Your task to perform on an android device: turn off sleep mode Image 0: 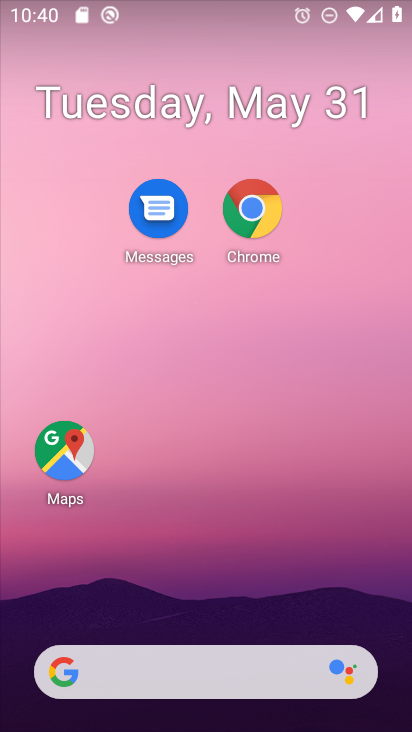
Step 0: drag from (213, 591) to (265, 0)
Your task to perform on an android device: turn off sleep mode Image 1: 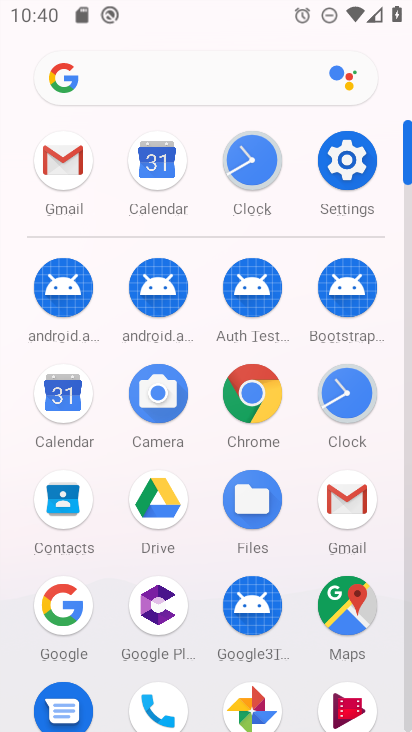
Step 1: click (351, 159)
Your task to perform on an android device: turn off sleep mode Image 2: 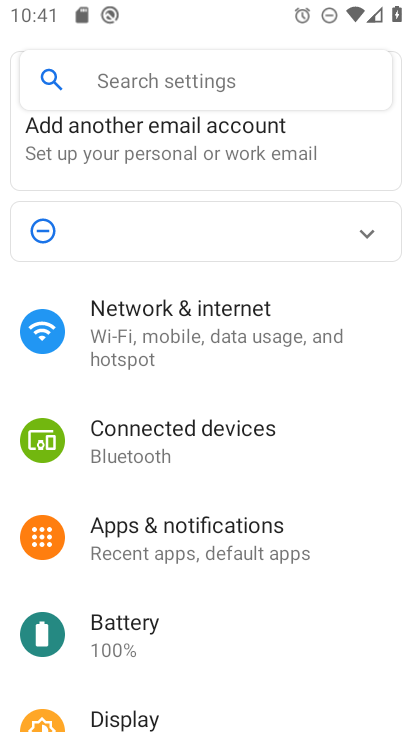
Step 2: click (177, 711)
Your task to perform on an android device: turn off sleep mode Image 3: 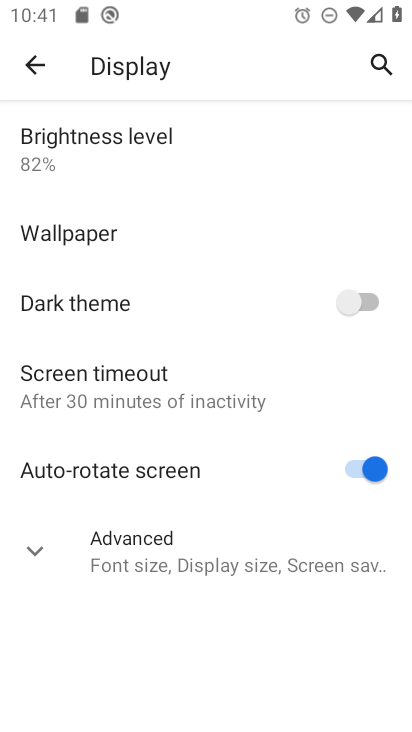
Step 3: click (21, 543)
Your task to perform on an android device: turn off sleep mode Image 4: 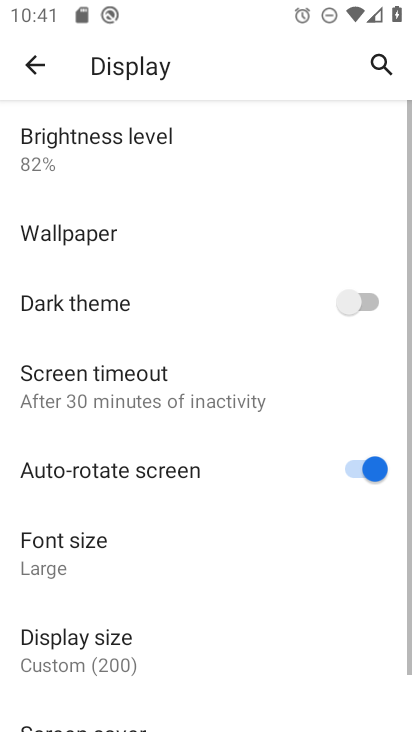
Step 4: task complete